Your task to perform on an android device: Go to calendar. Show me events next week Image 0: 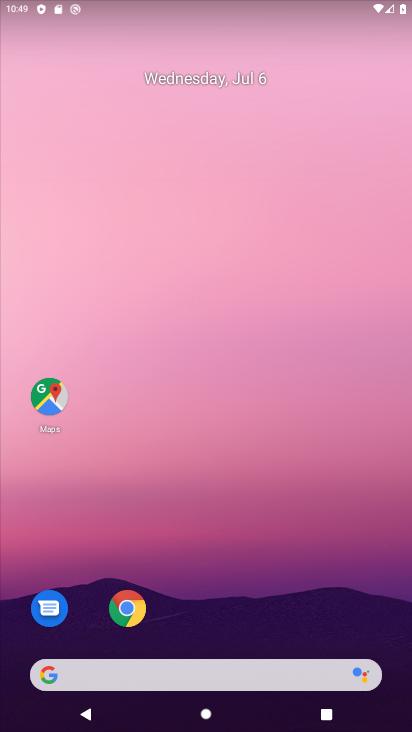
Step 0: press home button
Your task to perform on an android device: Go to calendar. Show me events next week Image 1: 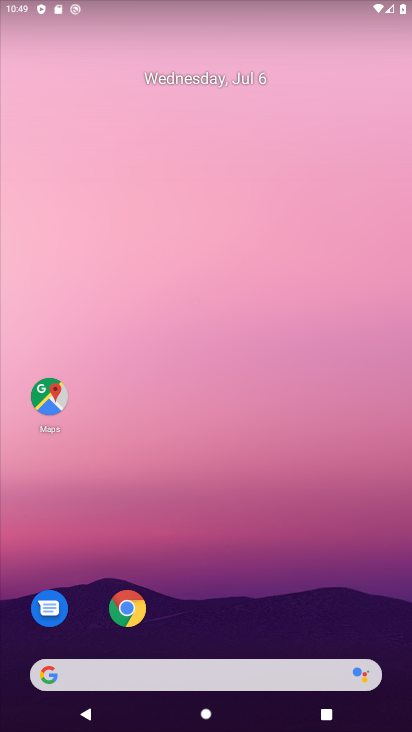
Step 1: drag from (218, 639) to (40, 86)
Your task to perform on an android device: Go to calendar. Show me events next week Image 2: 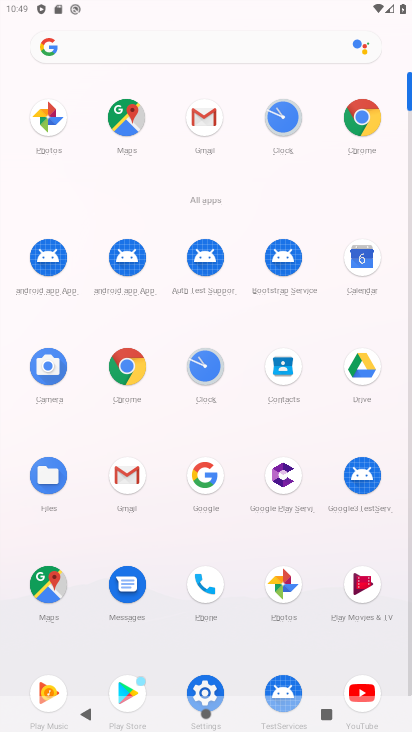
Step 2: click (355, 262)
Your task to perform on an android device: Go to calendar. Show me events next week Image 3: 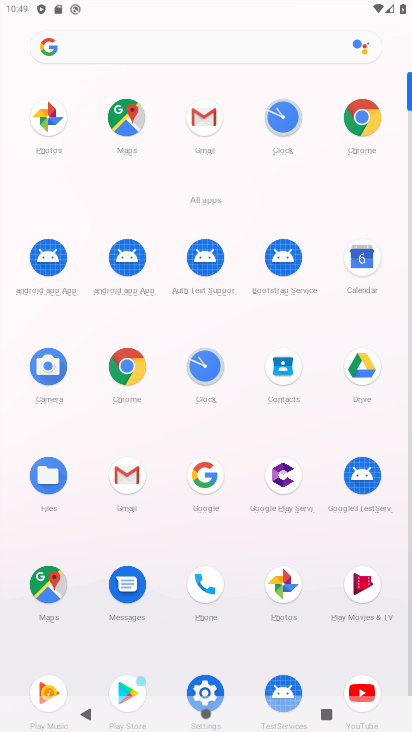
Step 3: click (355, 261)
Your task to perform on an android device: Go to calendar. Show me events next week Image 4: 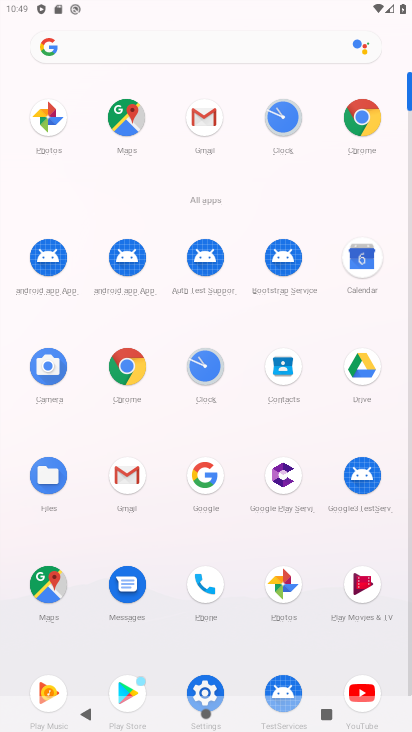
Step 4: click (355, 261)
Your task to perform on an android device: Go to calendar. Show me events next week Image 5: 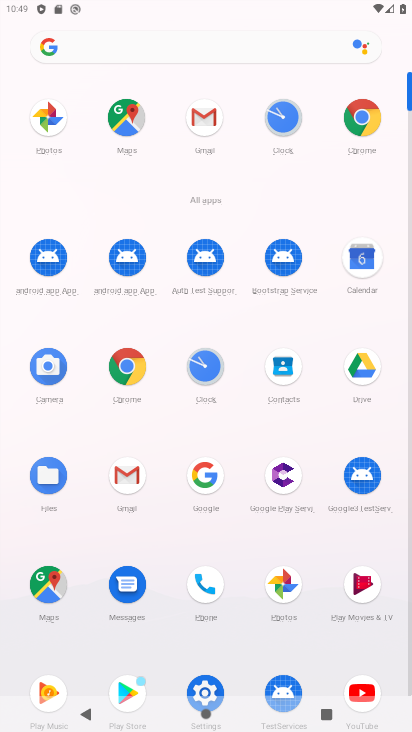
Step 5: click (355, 261)
Your task to perform on an android device: Go to calendar. Show me events next week Image 6: 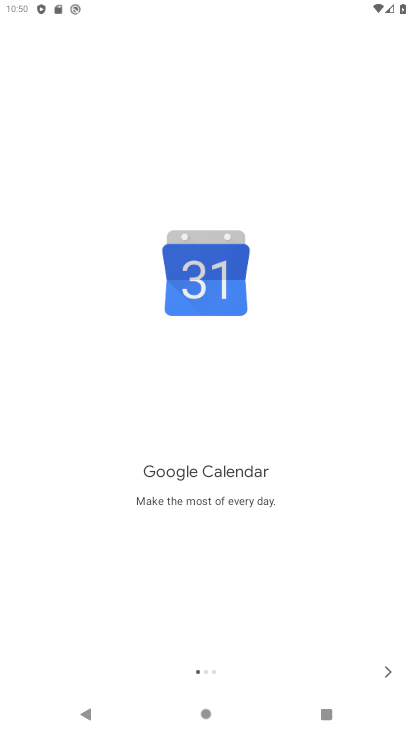
Step 6: click (389, 669)
Your task to perform on an android device: Go to calendar. Show me events next week Image 7: 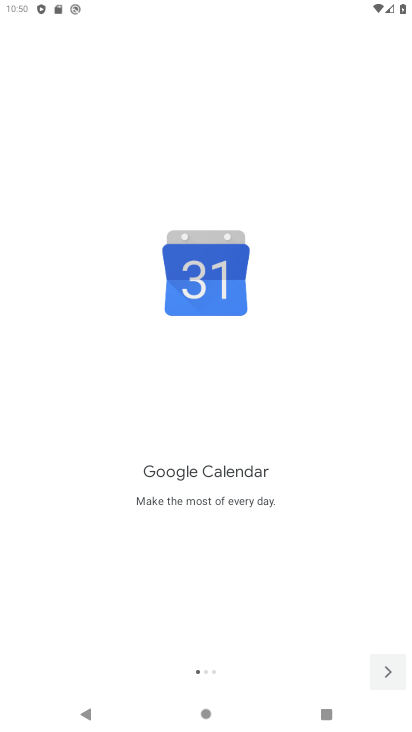
Step 7: click (389, 669)
Your task to perform on an android device: Go to calendar. Show me events next week Image 8: 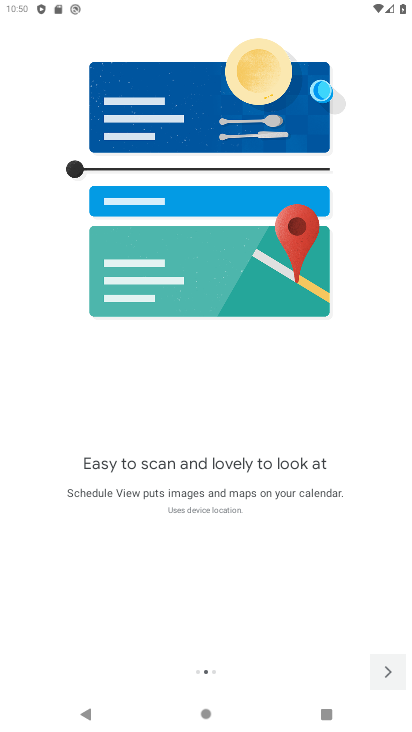
Step 8: click (389, 669)
Your task to perform on an android device: Go to calendar. Show me events next week Image 9: 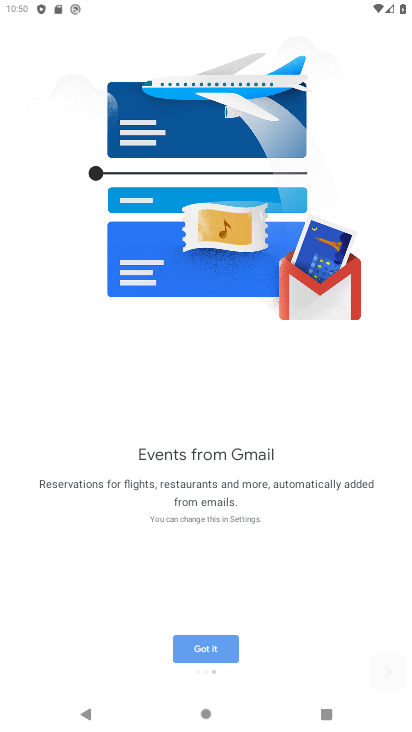
Step 9: click (389, 669)
Your task to perform on an android device: Go to calendar. Show me events next week Image 10: 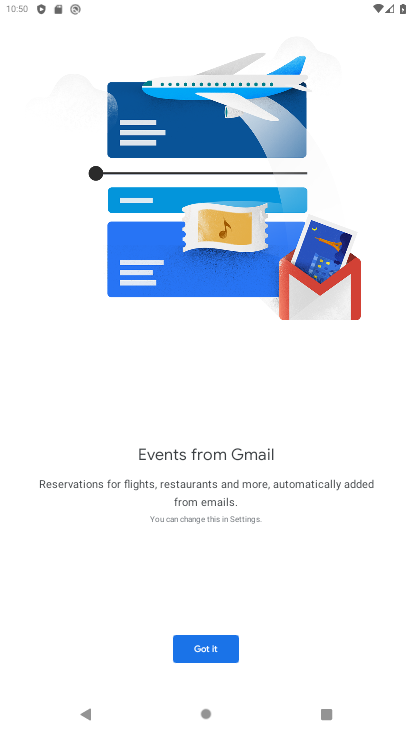
Step 10: click (204, 658)
Your task to perform on an android device: Go to calendar. Show me events next week Image 11: 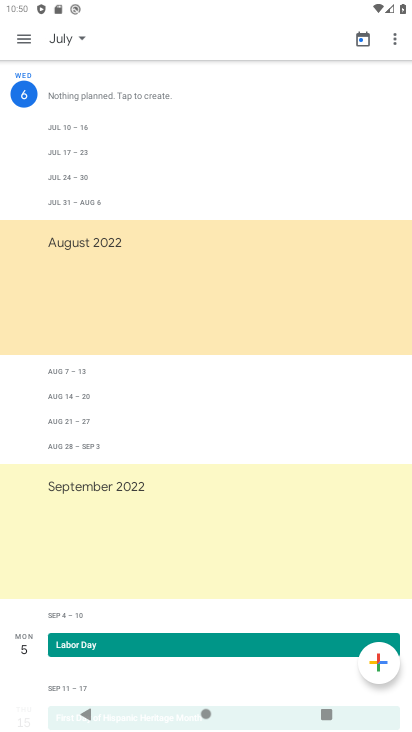
Step 11: task complete